Your task to perform on an android device: allow notifications from all sites in the chrome app Image 0: 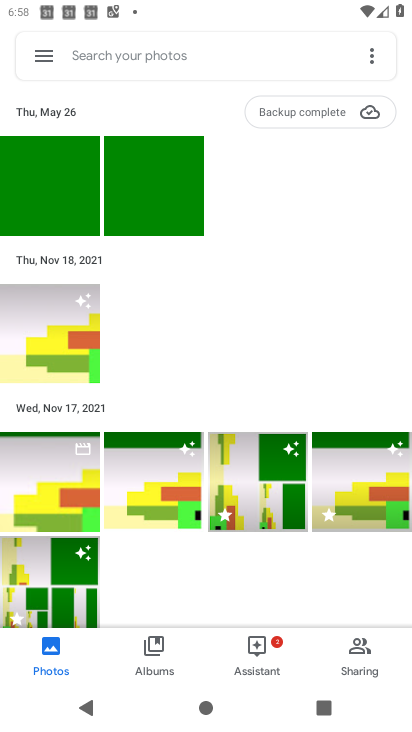
Step 0: press home button
Your task to perform on an android device: allow notifications from all sites in the chrome app Image 1: 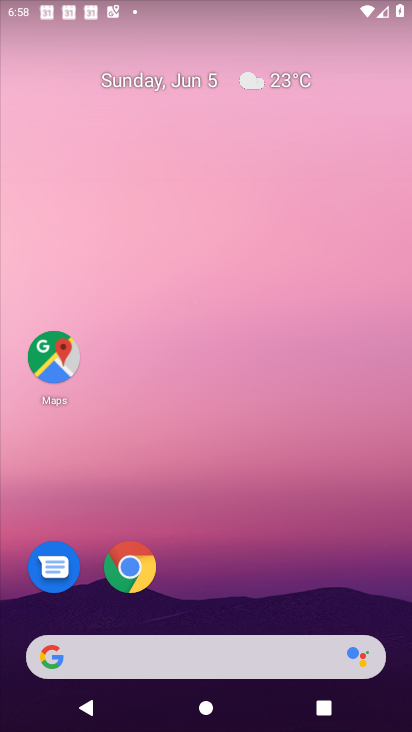
Step 1: drag from (400, 636) to (221, 19)
Your task to perform on an android device: allow notifications from all sites in the chrome app Image 2: 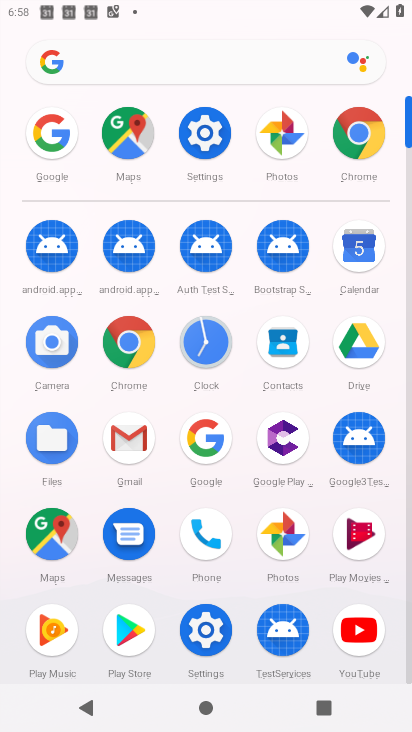
Step 2: click (359, 128)
Your task to perform on an android device: allow notifications from all sites in the chrome app Image 3: 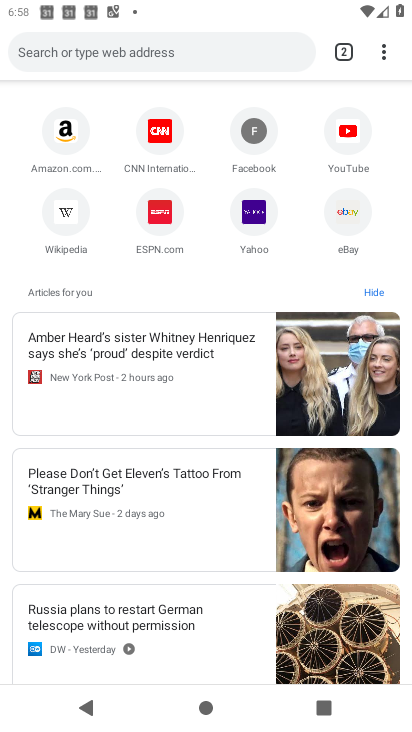
Step 3: click (385, 44)
Your task to perform on an android device: allow notifications from all sites in the chrome app Image 4: 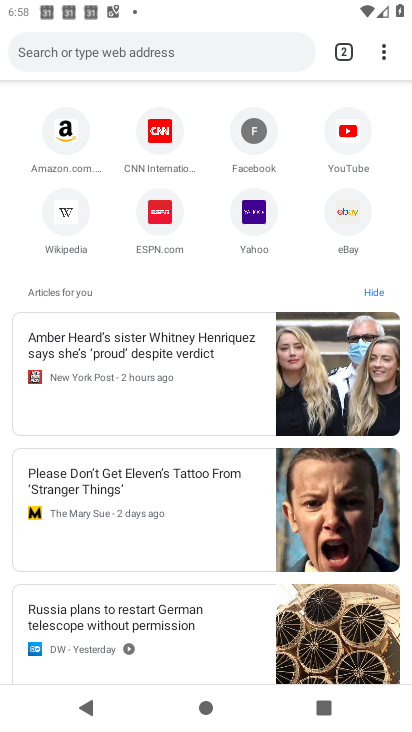
Step 4: click (384, 44)
Your task to perform on an android device: allow notifications from all sites in the chrome app Image 5: 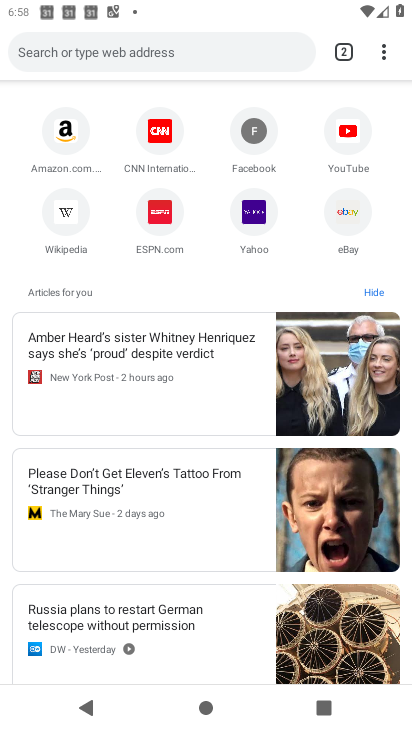
Step 5: click (384, 44)
Your task to perform on an android device: allow notifications from all sites in the chrome app Image 6: 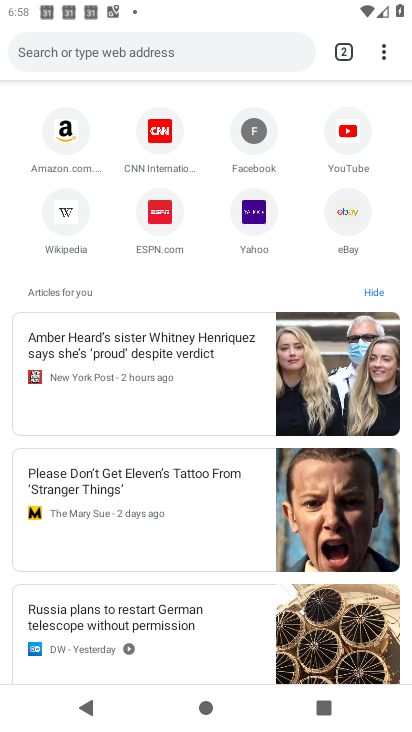
Step 6: click (384, 44)
Your task to perform on an android device: allow notifications from all sites in the chrome app Image 7: 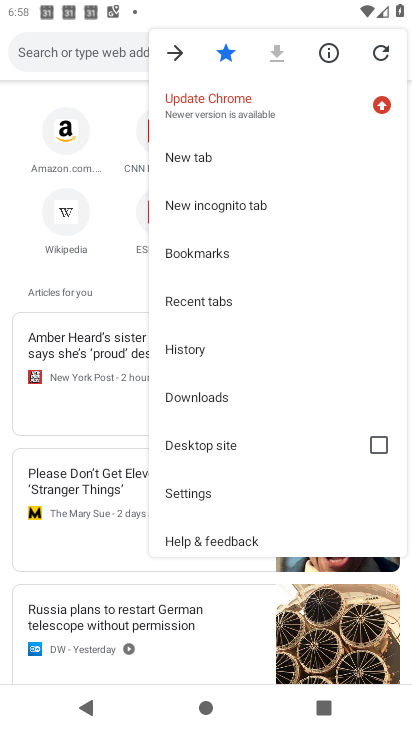
Step 7: click (182, 498)
Your task to perform on an android device: allow notifications from all sites in the chrome app Image 8: 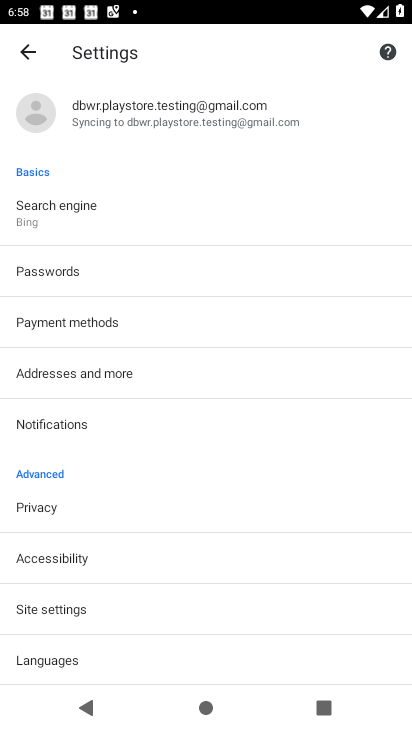
Step 8: click (118, 424)
Your task to perform on an android device: allow notifications from all sites in the chrome app Image 9: 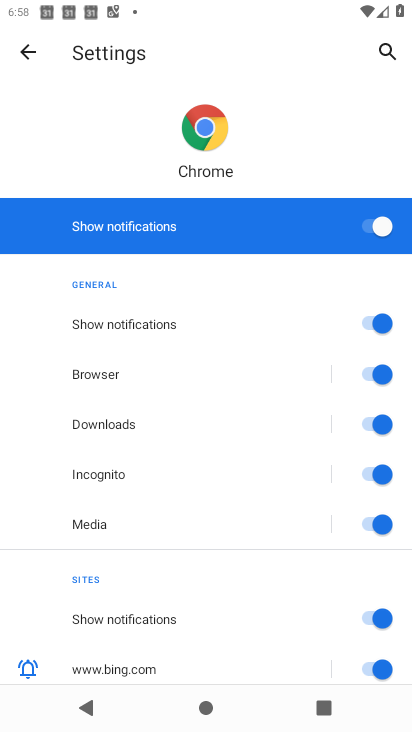
Step 9: task complete